Your task to perform on an android device: Search for "usb-b" on walmart, select the first entry, and add it to the cart. Image 0: 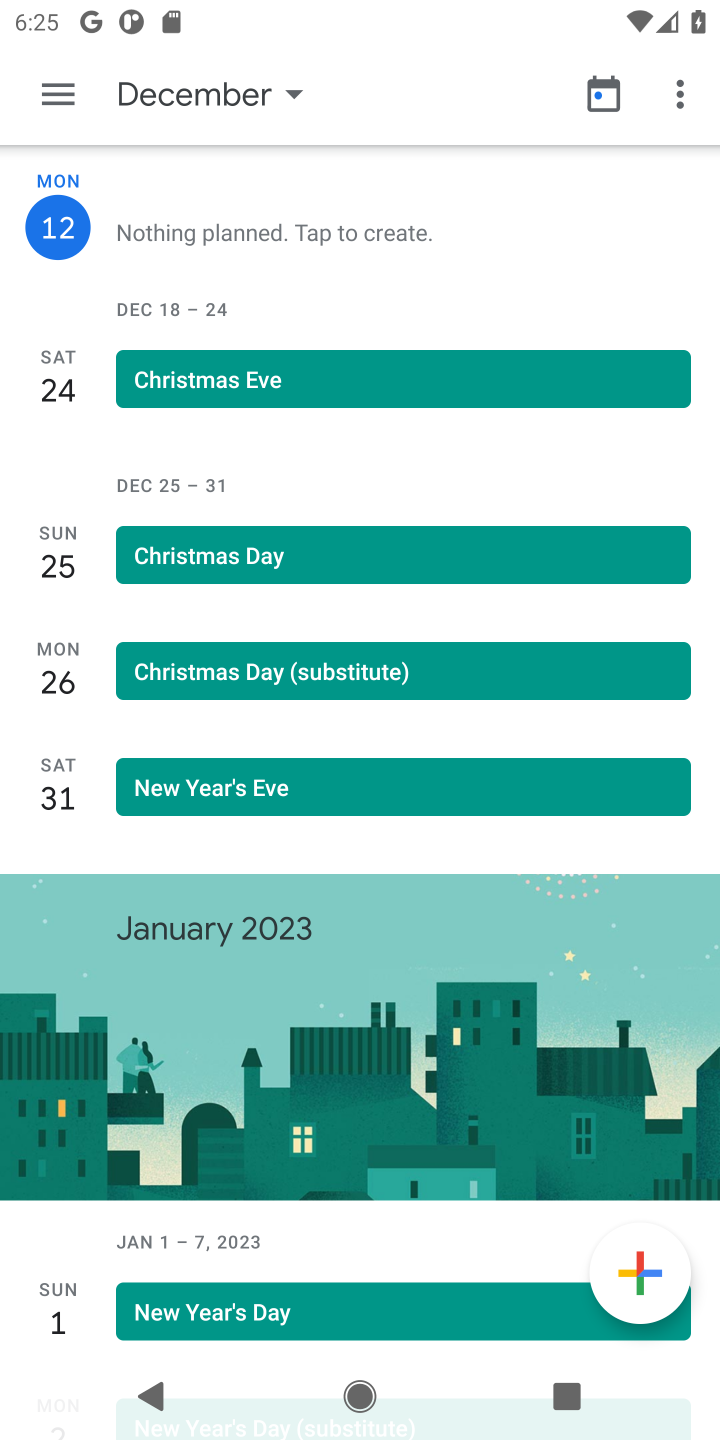
Step 0: press home button
Your task to perform on an android device: Search for "usb-b" on walmart, select the first entry, and add it to the cart. Image 1: 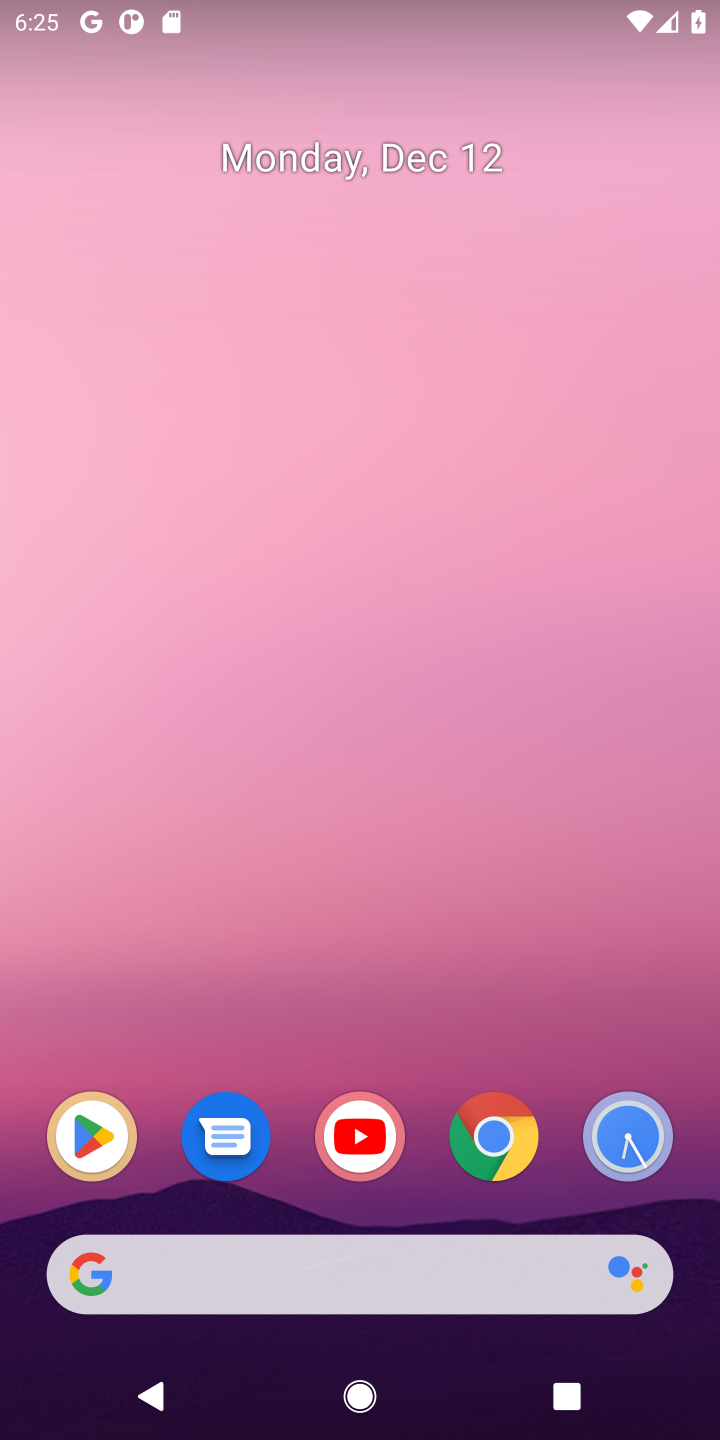
Step 1: click (487, 1152)
Your task to perform on an android device: Search for "usb-b" on walmart, select the first entry, and add it to the cart. Image 2: 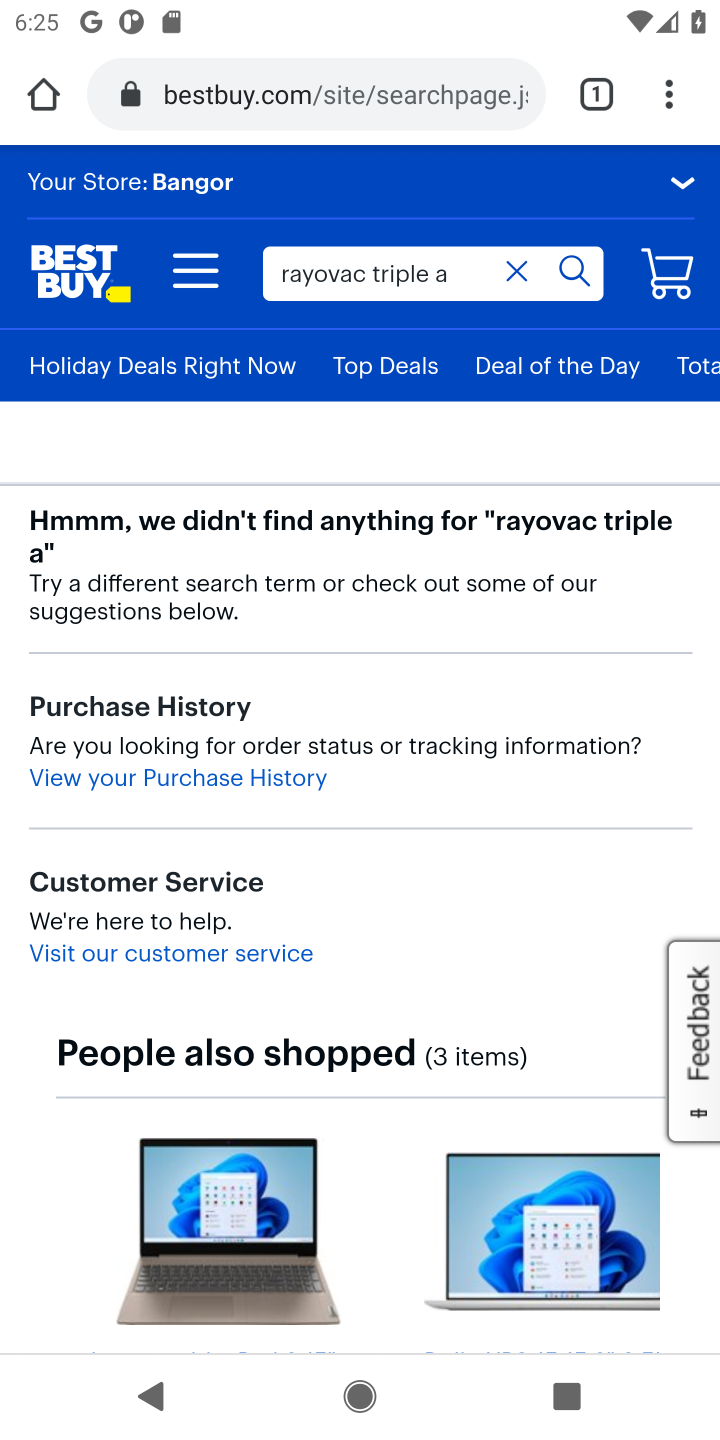
Step 2: click (284, 97)
Your task to perform on an android device: Search for "usb-b" on walmart, select the first entry, and add it to the cart. Image 3: 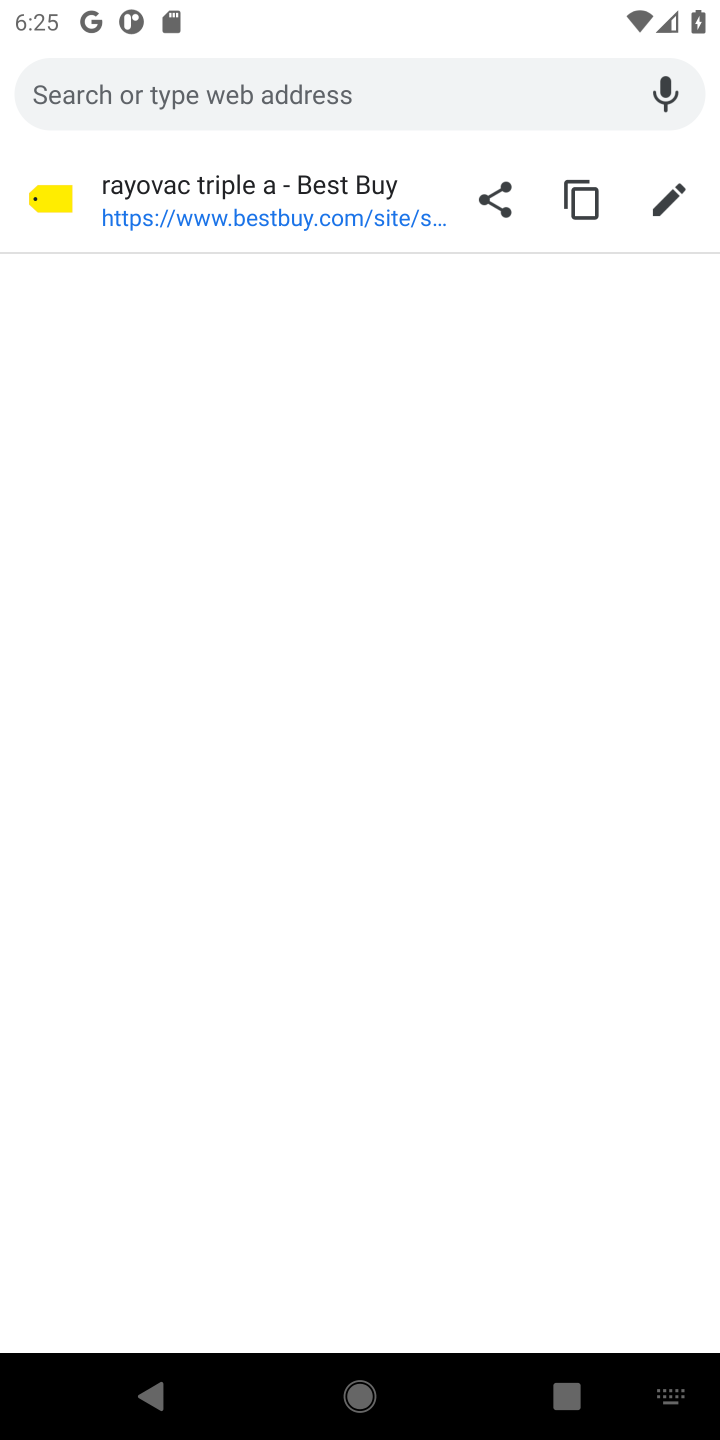
Step 3: type "walmart.com"
Your task to perform on an android device: Search for "usb-b" on walmart, select the first entry, and add it to the cart. Image 4: 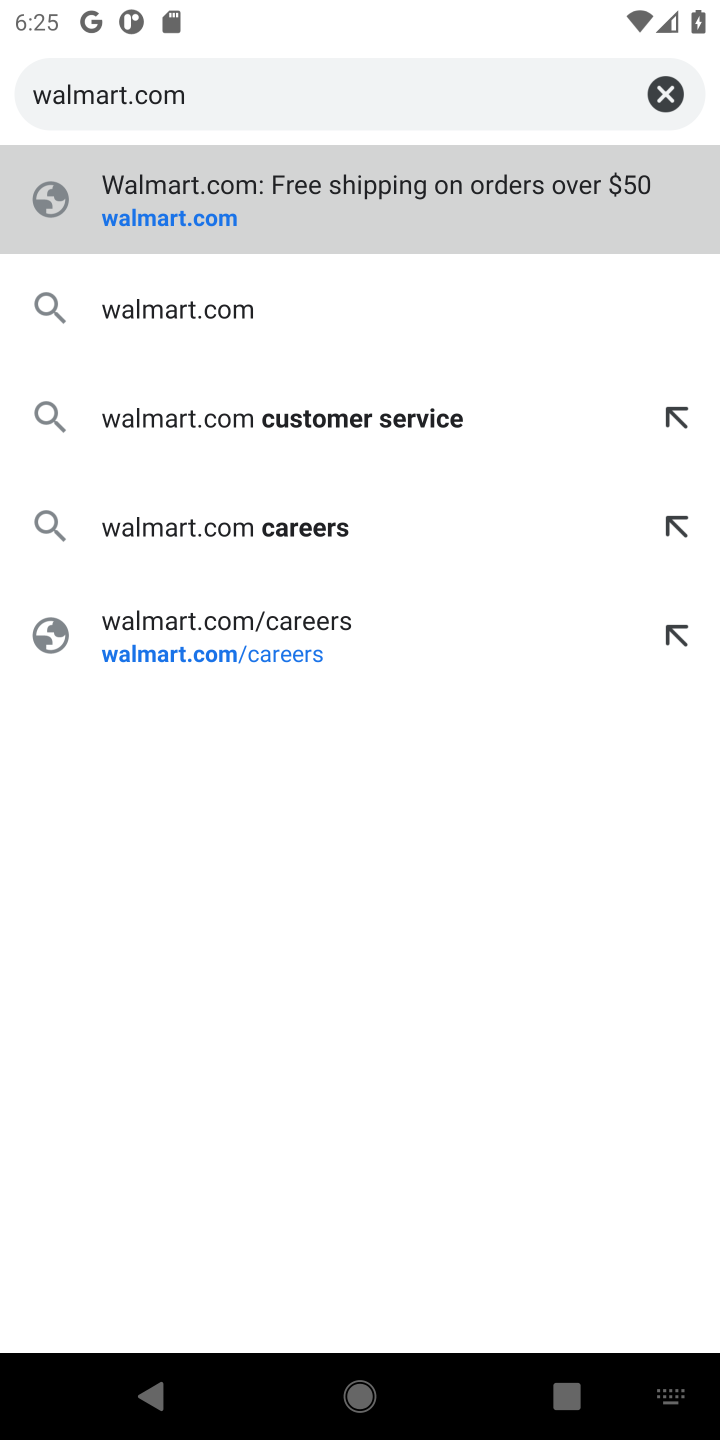
Step 4: click (153, 232)
Your task to perform on an android device: Search for "usb-b" on walmart, select the first entry, and add it to the cart. Image 5: 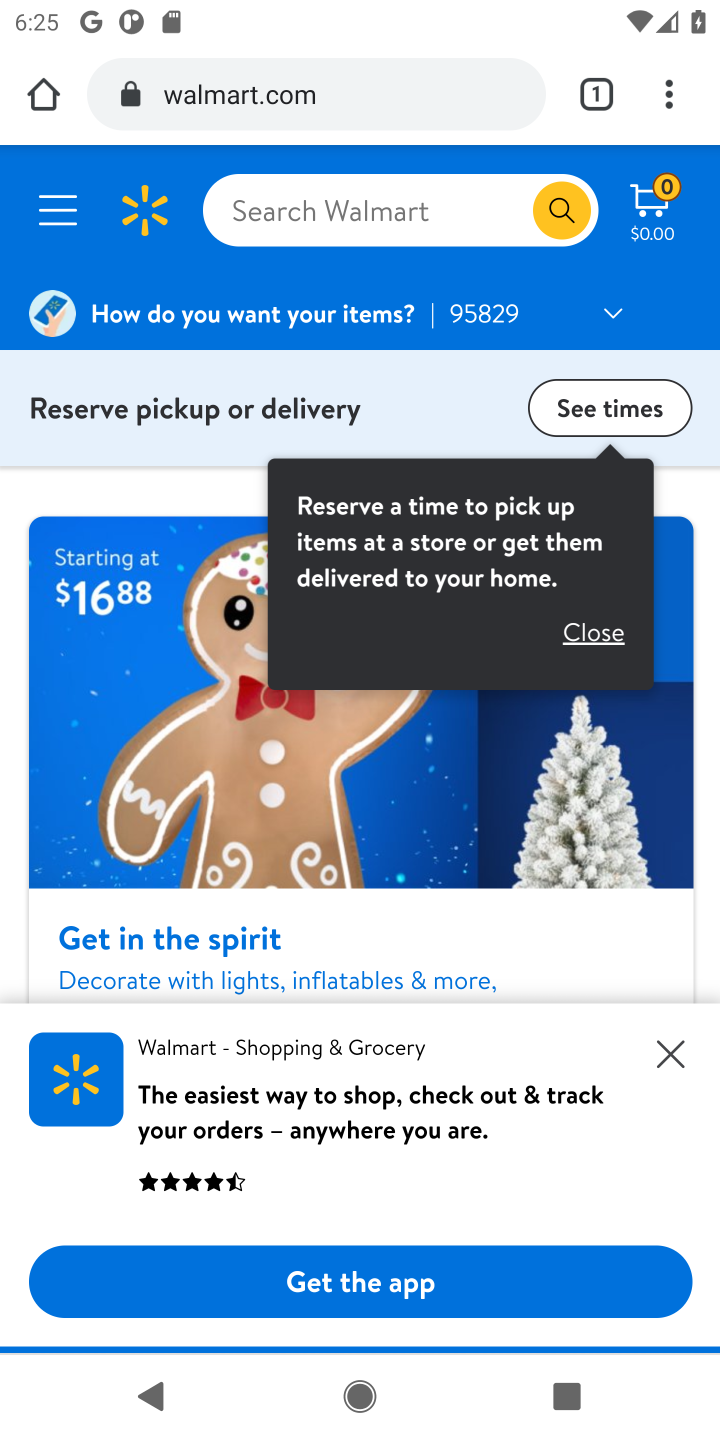
Step 5: click (298, 210)
Your task to perform on an android device: Search for "usb-b" on walmart, select the first entry, and add it to the cart. Image 6: 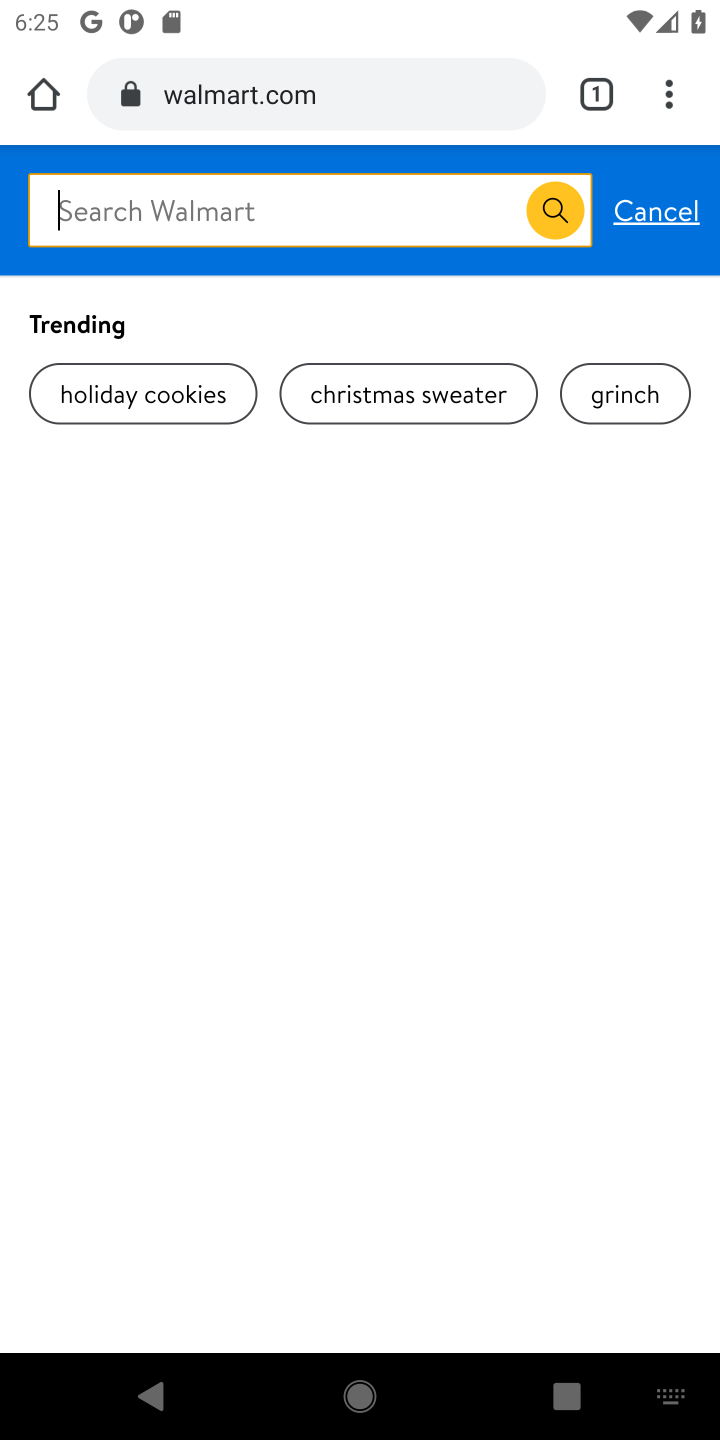
Step 6: type "usb-b"
Your task to perform on an android device: Search for "usb-b" on walmart, select the first entry, and add it to the cart. Image 7: 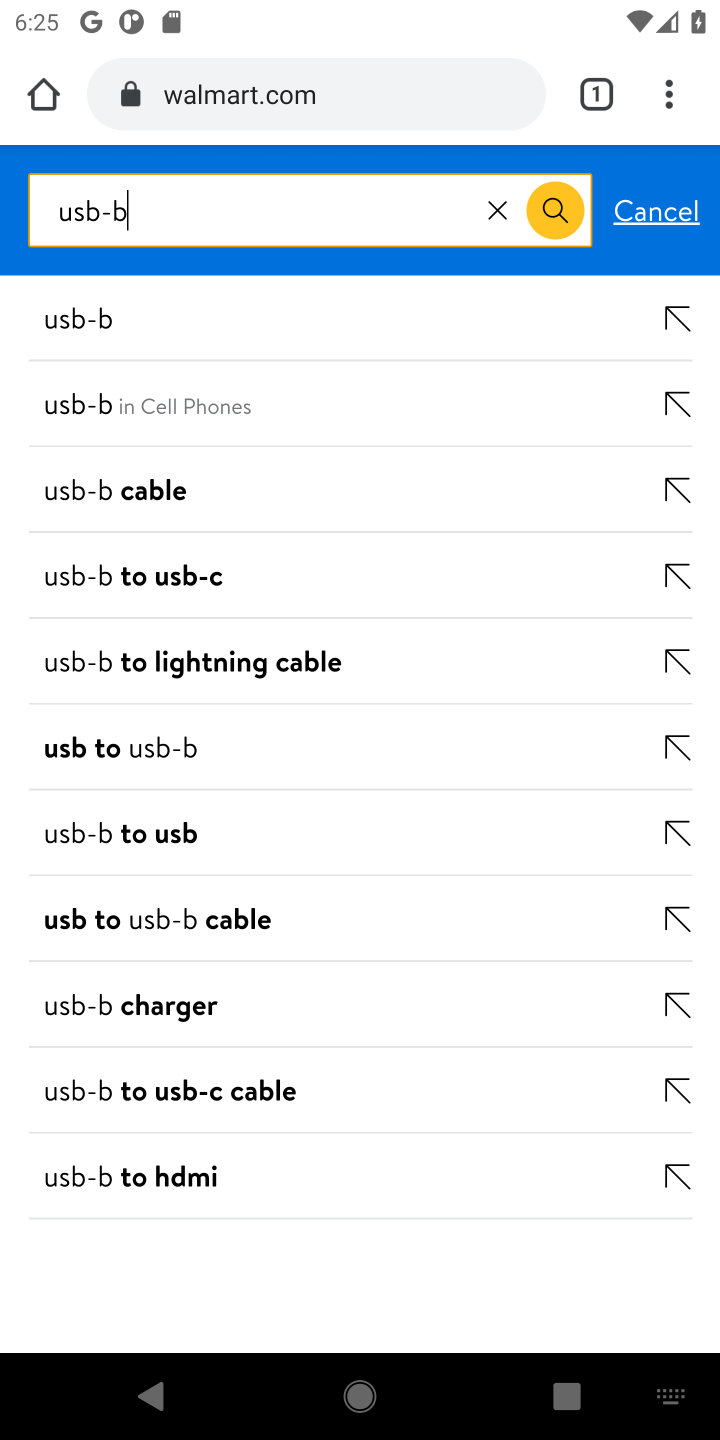
Step 7: click (60, 315)
Your task to perform on an android device: Search for "usb-b" on walmart, select the first entry, and add it to the cart. Image 8: 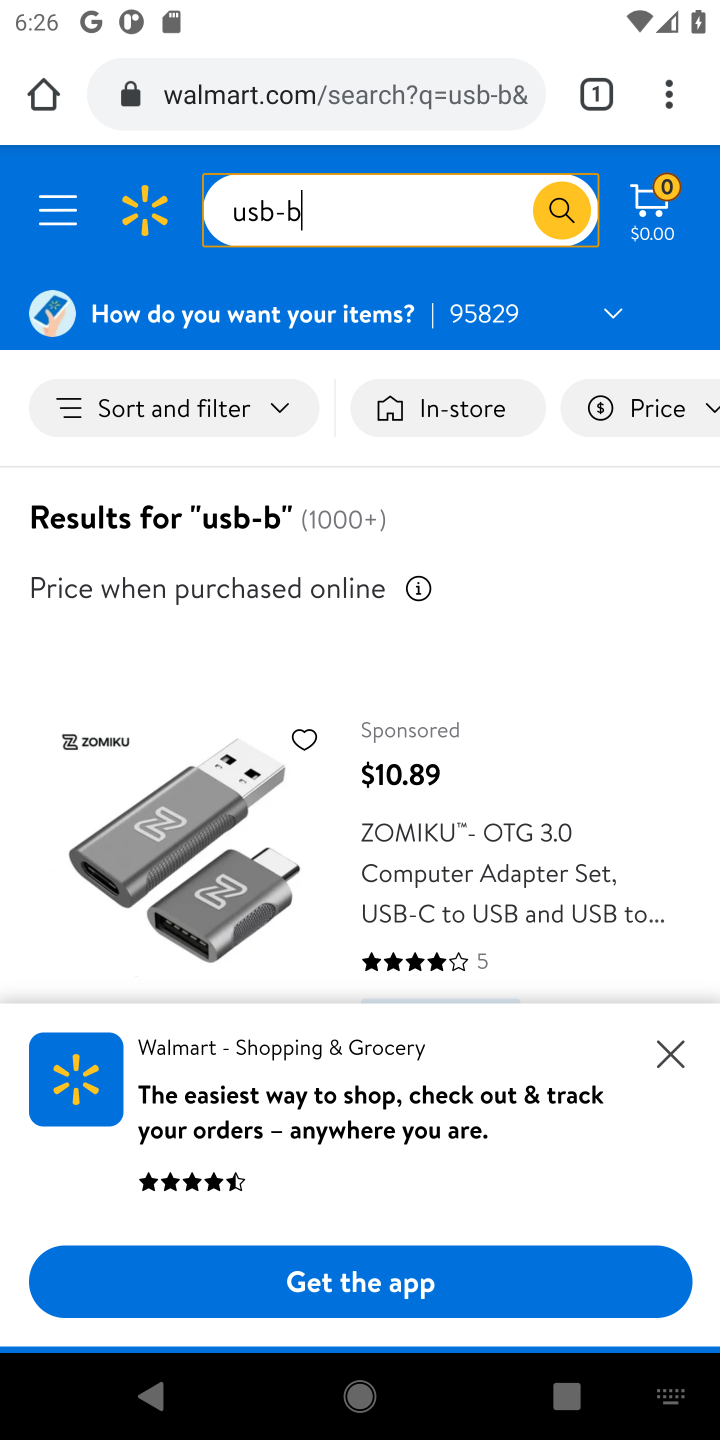
Step 8: drag from (318, 896) to (289, 465)
Your task to perform on an android device: Search for "usb-b" on walmart, select the first entry, and add it to the cart. Image 9: 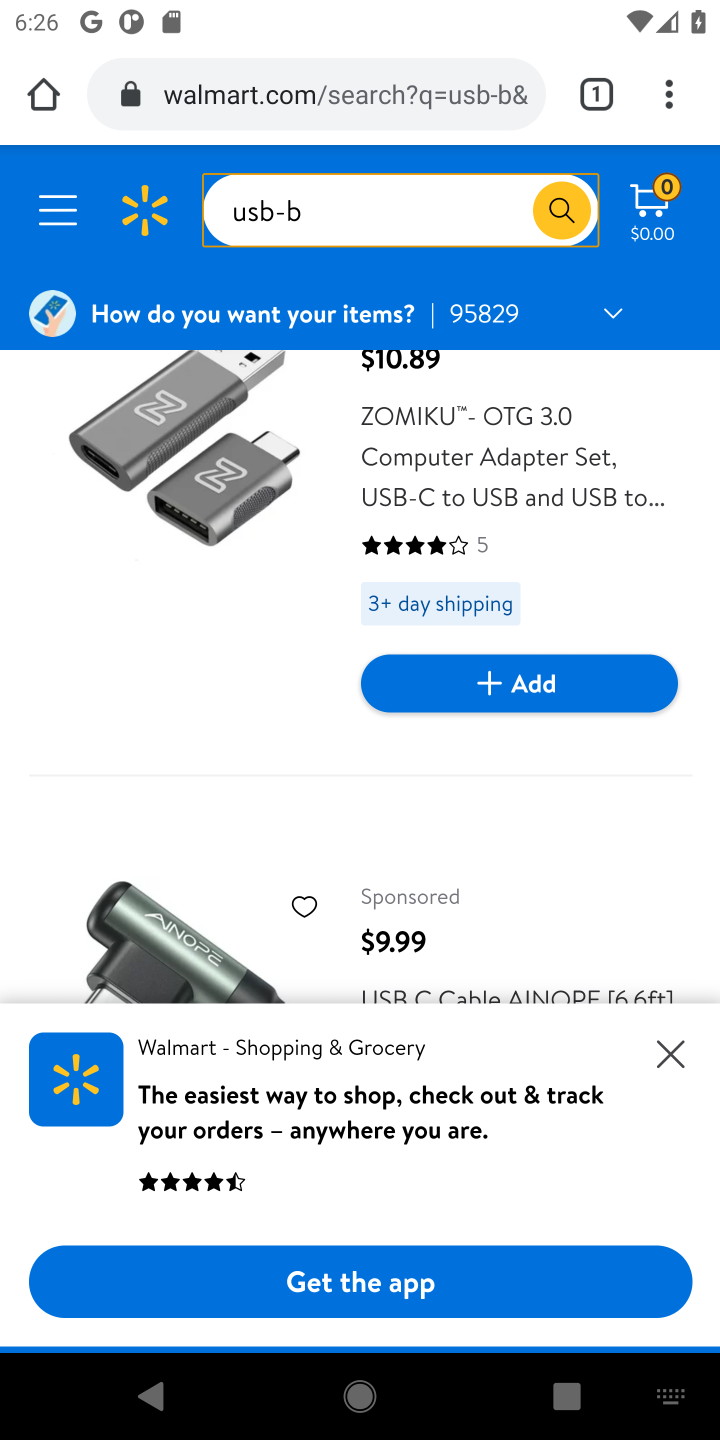
Step 9: click (472, 467)
Your task to perform on an android device: Search for "usb-b" on walmart, select the first entry, and add it to the cart. Image 10: 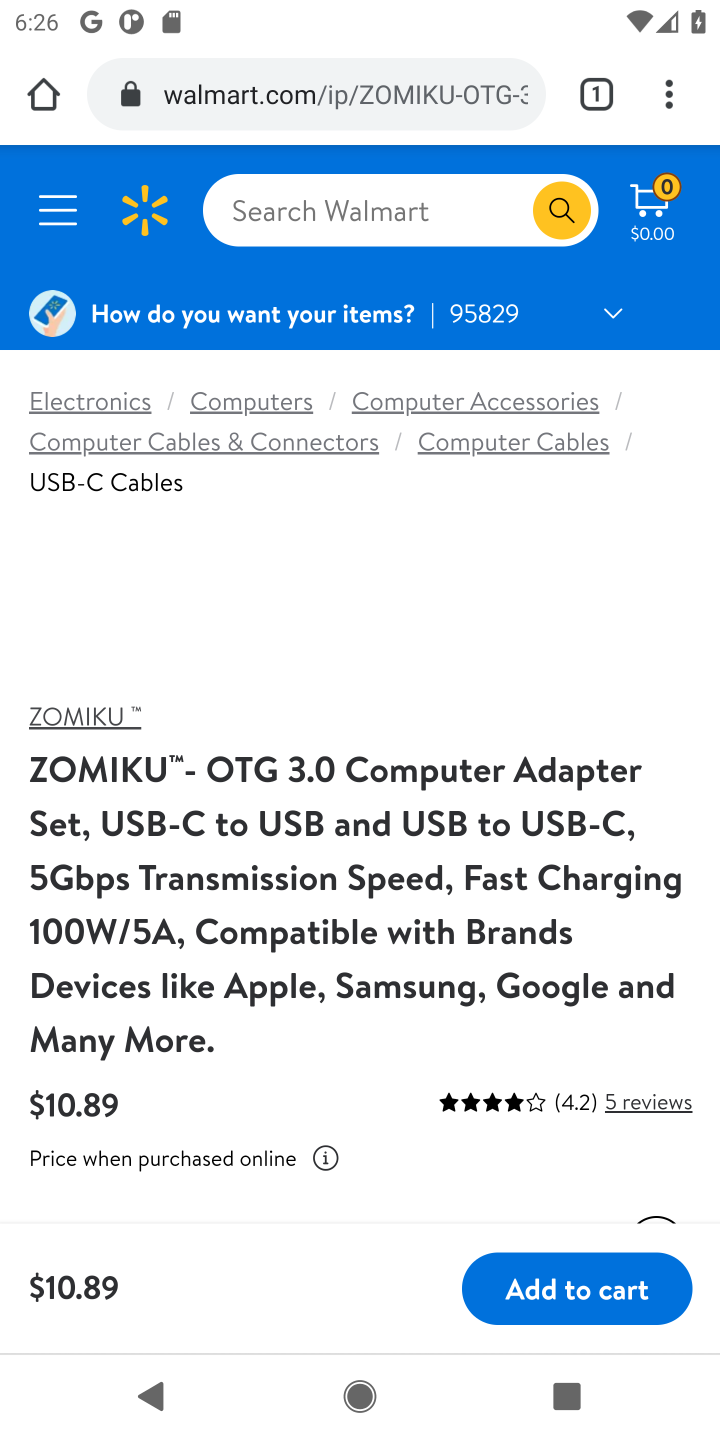
Step 10: task complete